Your task to perform on an android device: Turn off the flashlight Image 0: 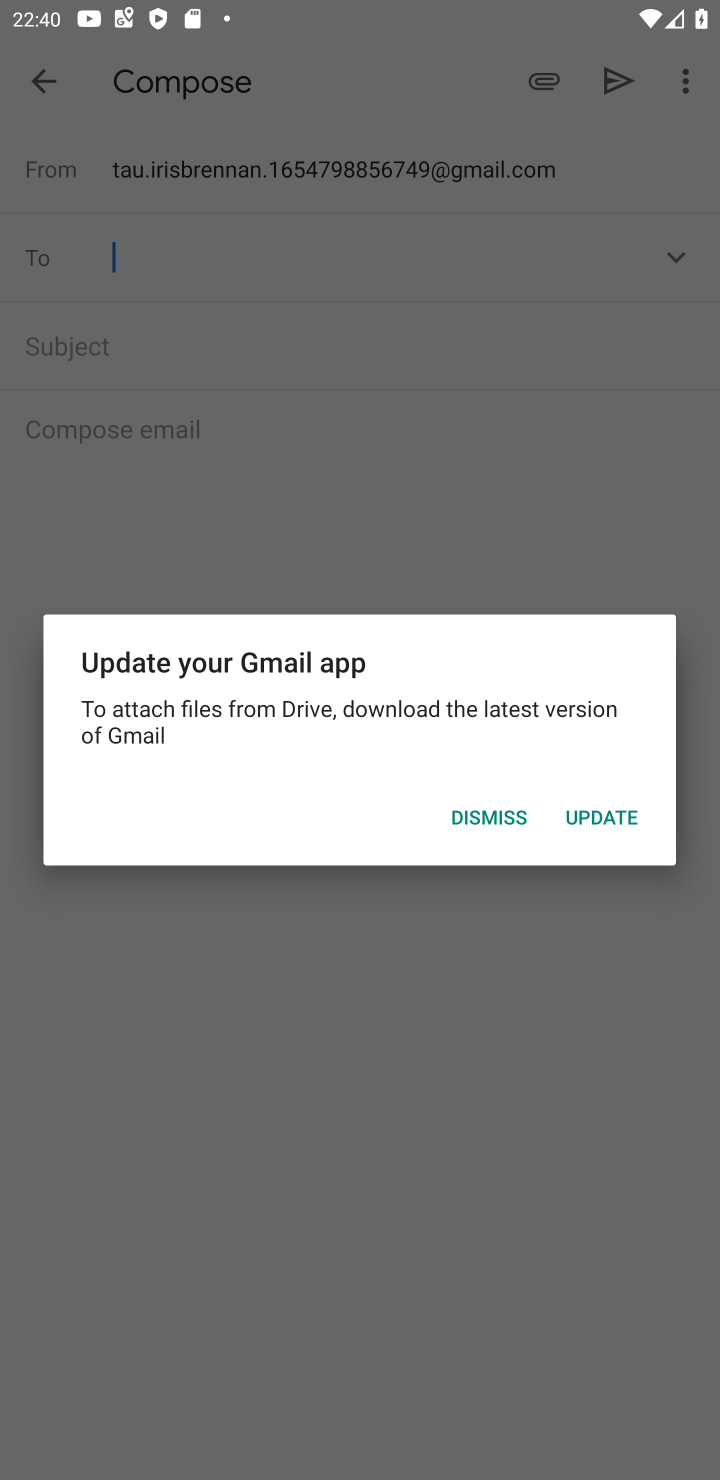
Step 0: press home button
Your task to perform on an android device: Turn off the flashlight Image 1: 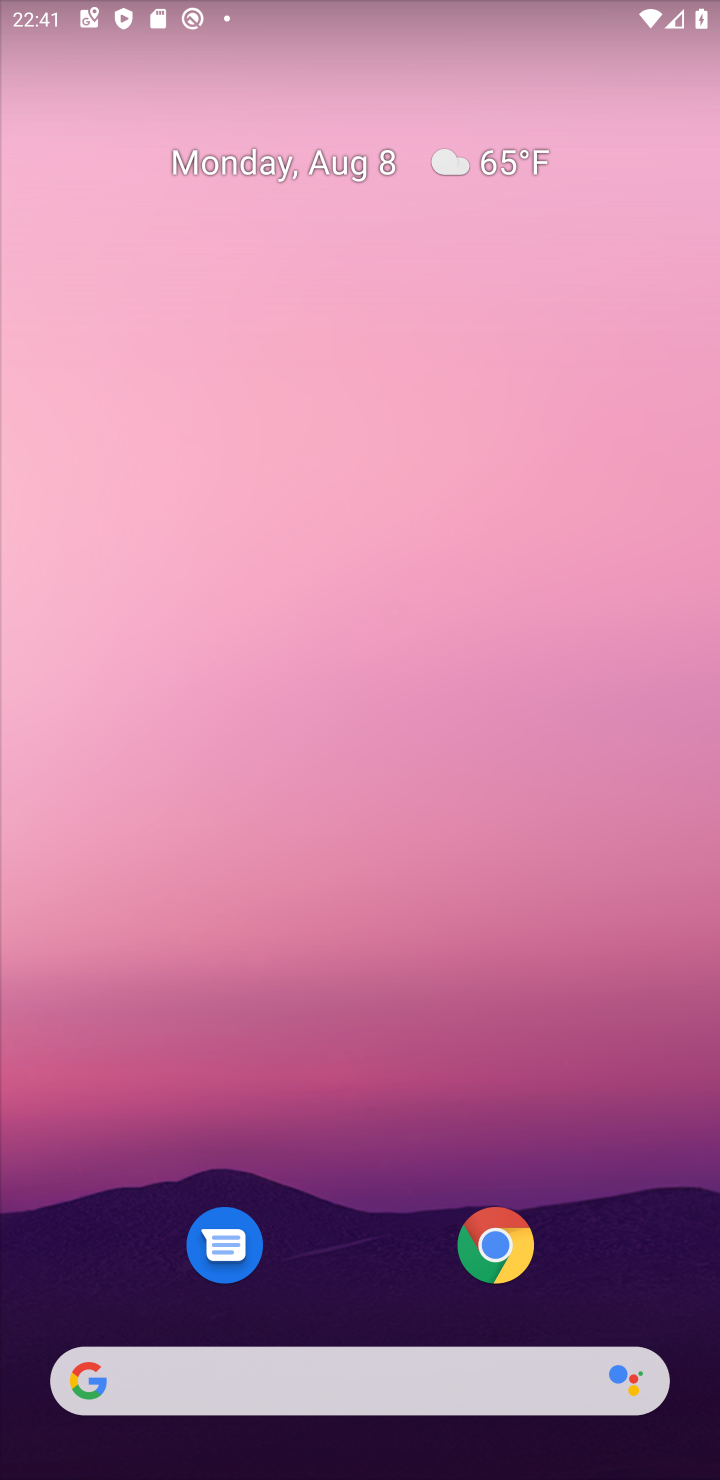
Step 1: drag from (310, 1212) to (272, 565)
Your task to perform on an android device: Turn off the flashlight Image 2: 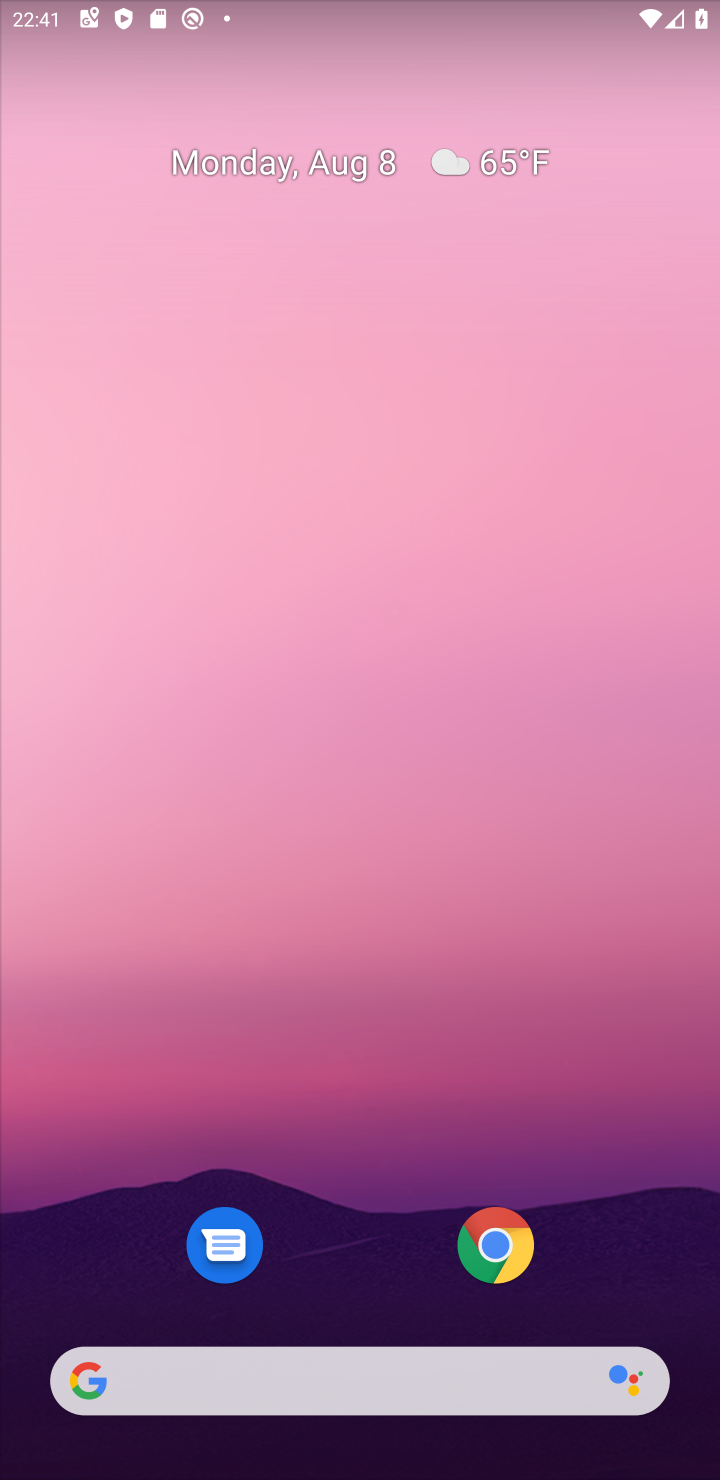
Step 2: drag from (401, 1168) to (217, 206)
Your task to perform on an android device: Turn off the flashlight Image 3: 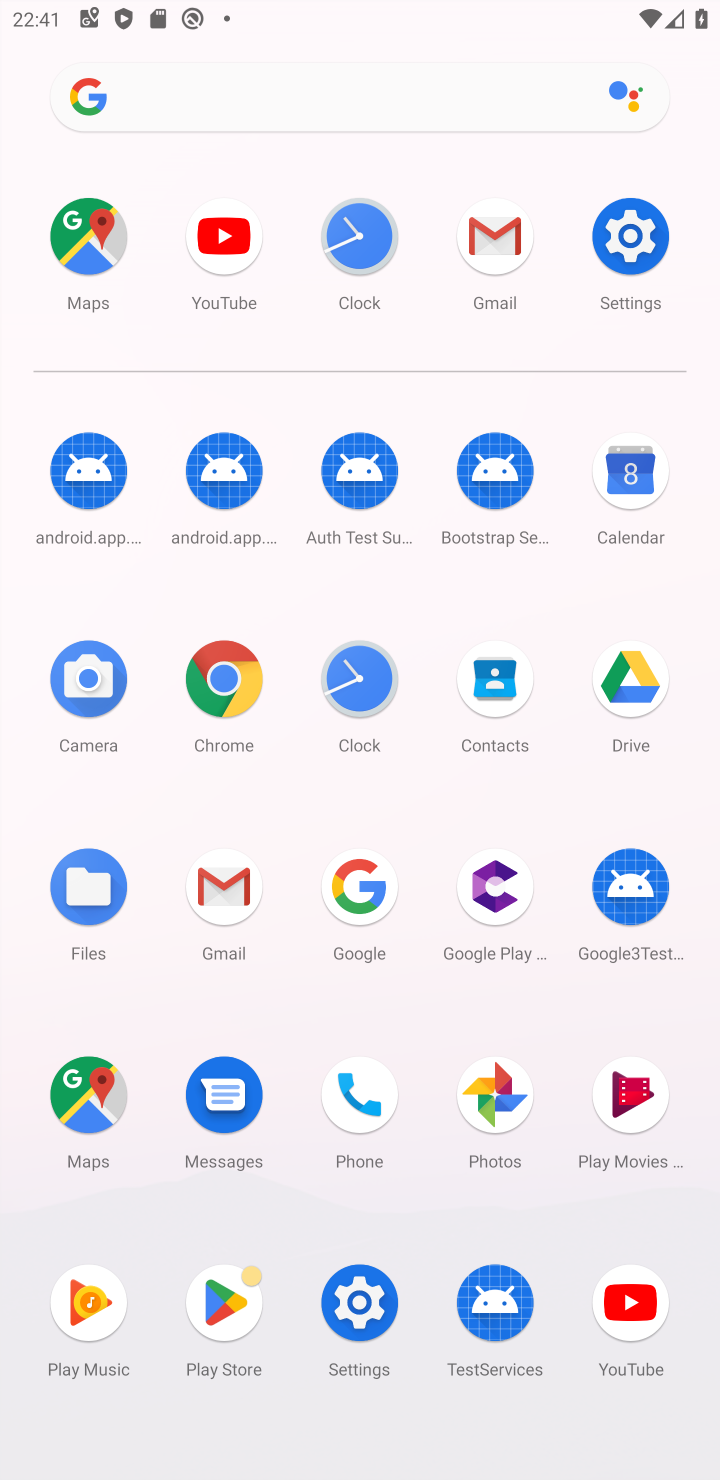
Step 3: click (633, 230)
Your task to perform on an android device: Turn off the flashlight Image 4: 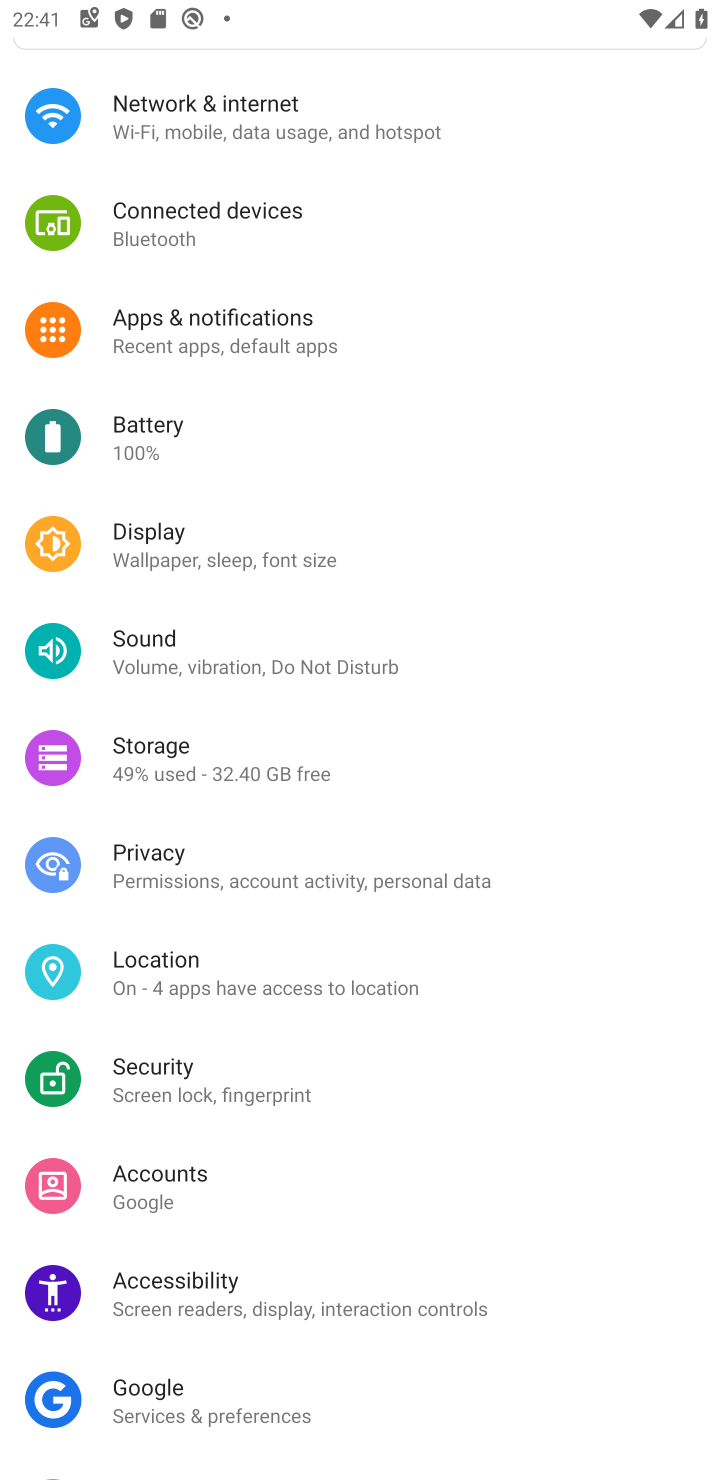
Step 4: click (94, 292)
Your task to perform on an android device: Turn off the flashlight Image 5: 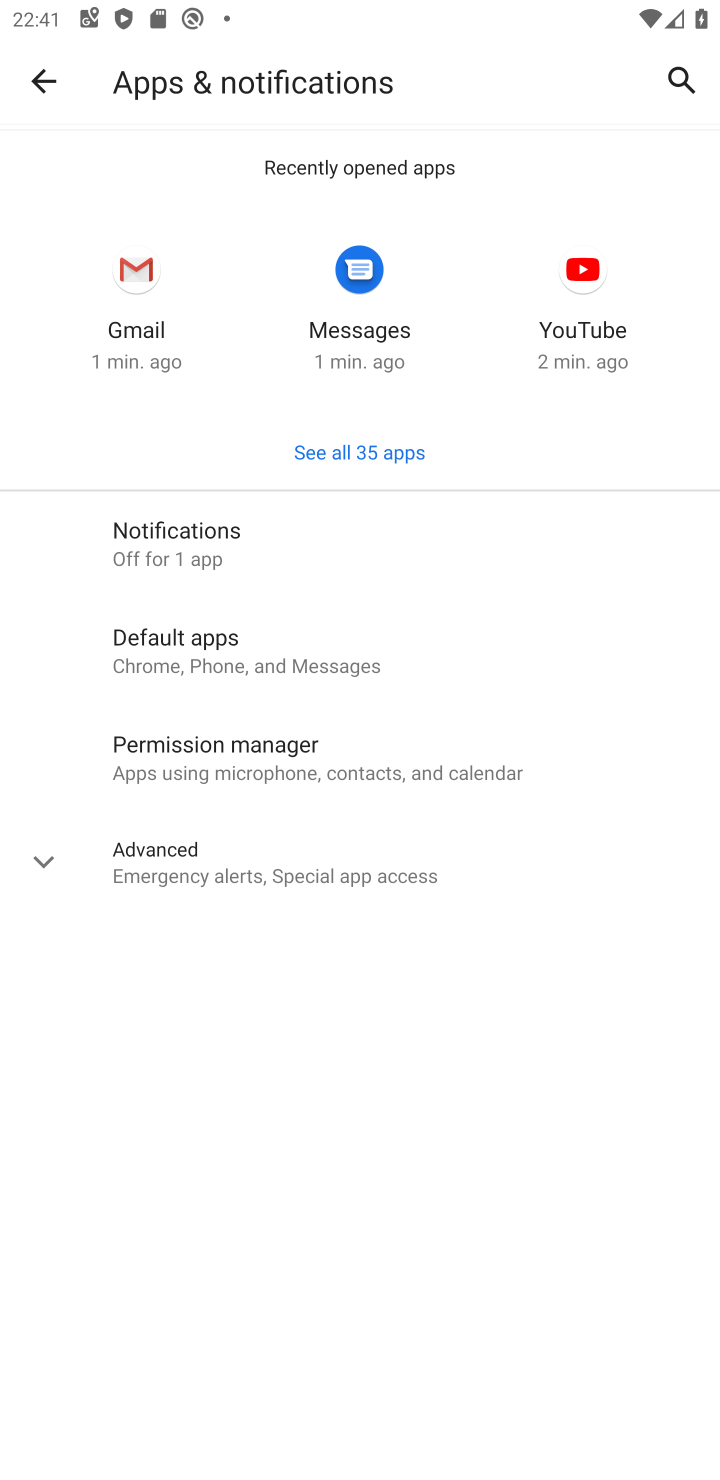
Step 5: click (35, 79)
Your task to perform on an android device: Turn off the flashlight Image 6: 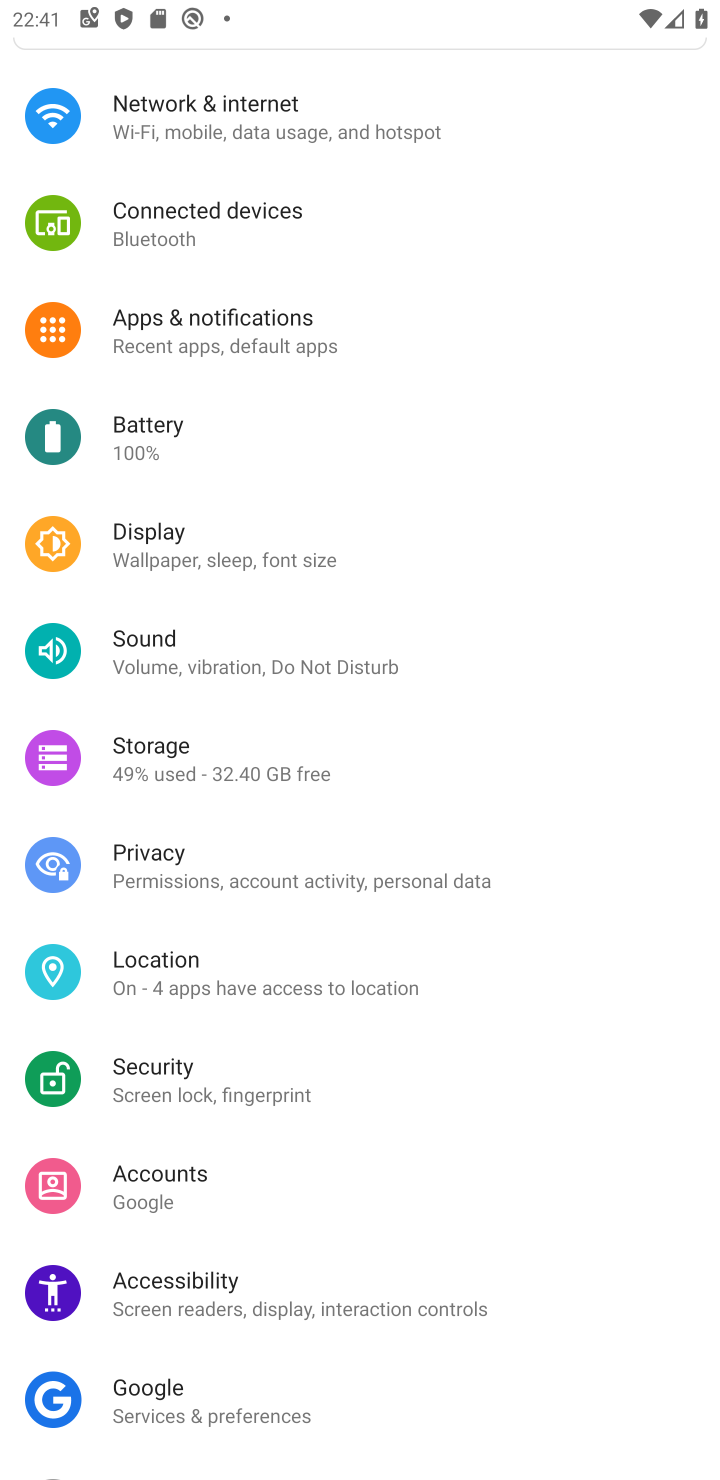
Step 6: click (156, 532)
Your task to perform on an android device: Turn off the flashlight Image 7: 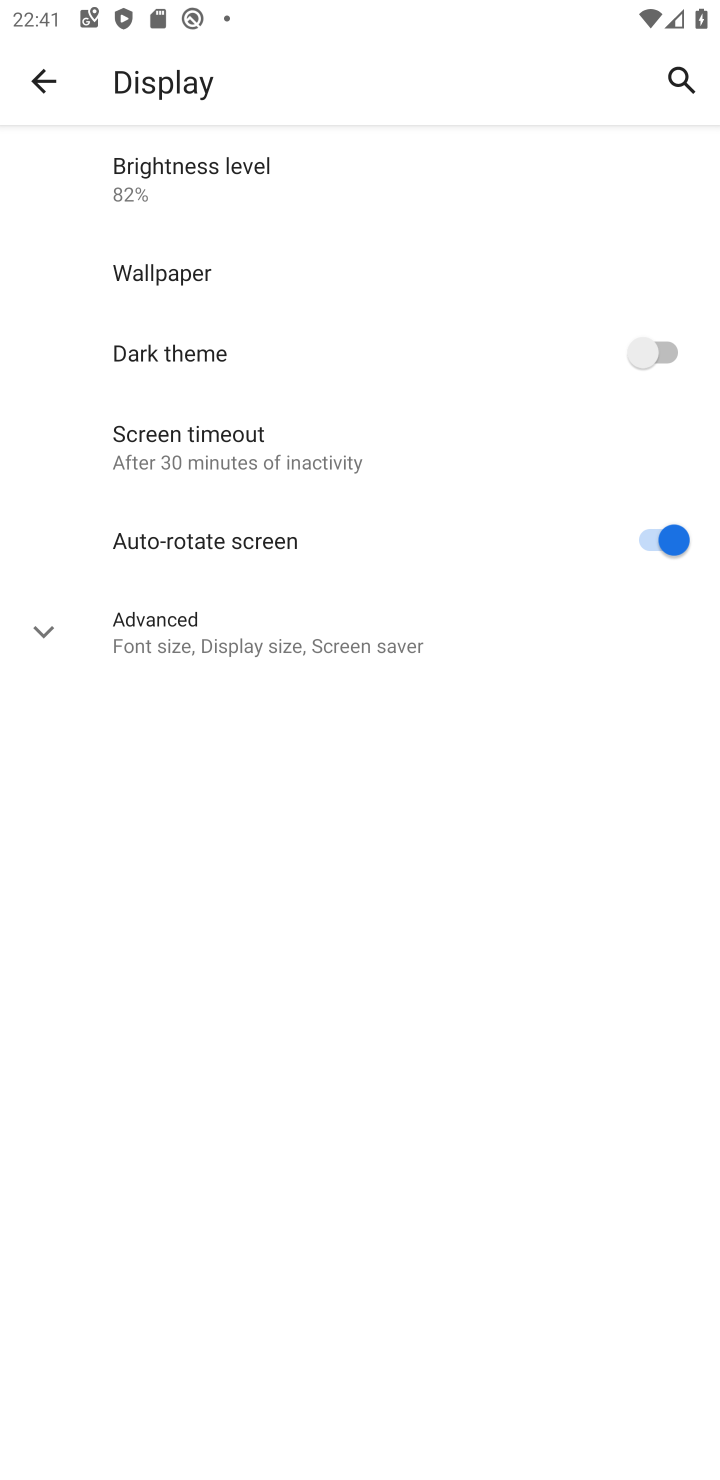
Step 7: click (42, 69)
Your task to perform on an android device: Turn off the flashlight Image 8: 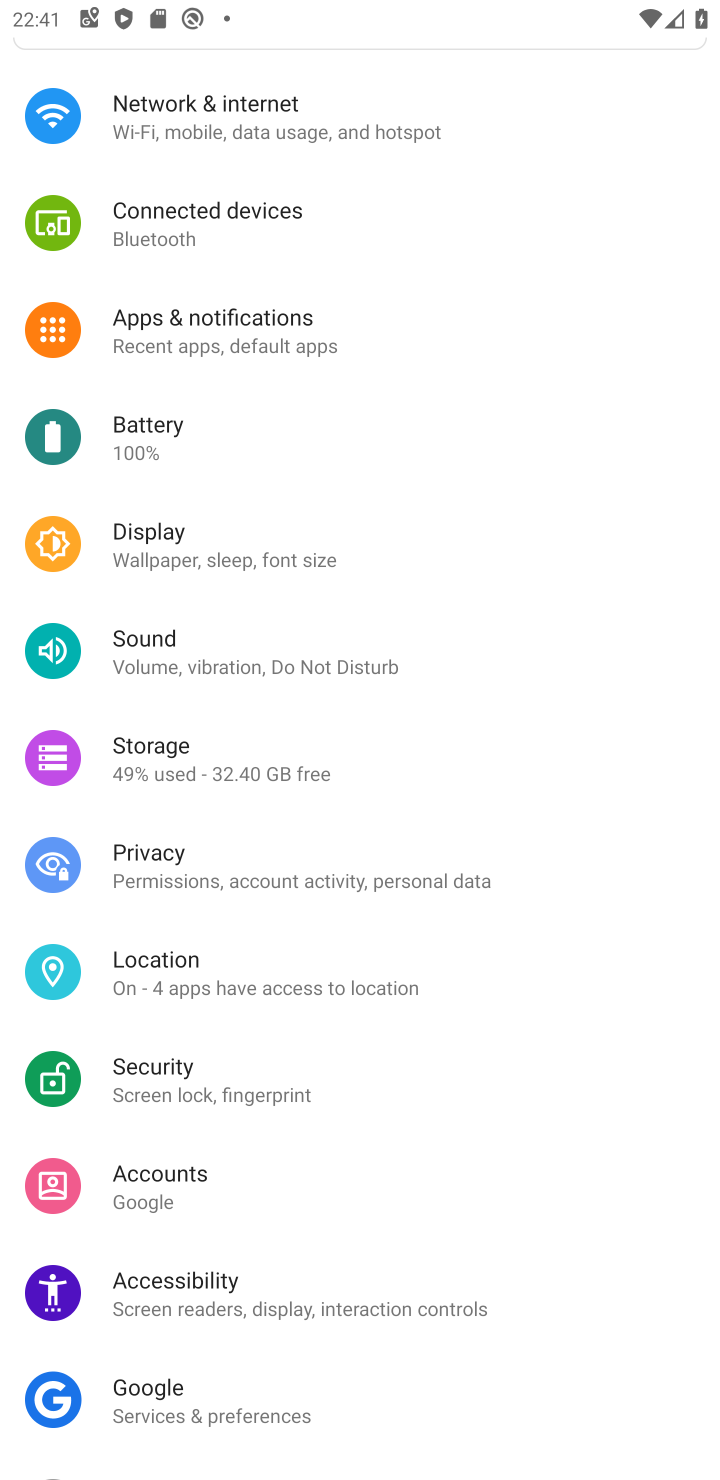
Step 8: task complete